Your task to perform on an android device: delete browsing data in the chrome app Image 0: 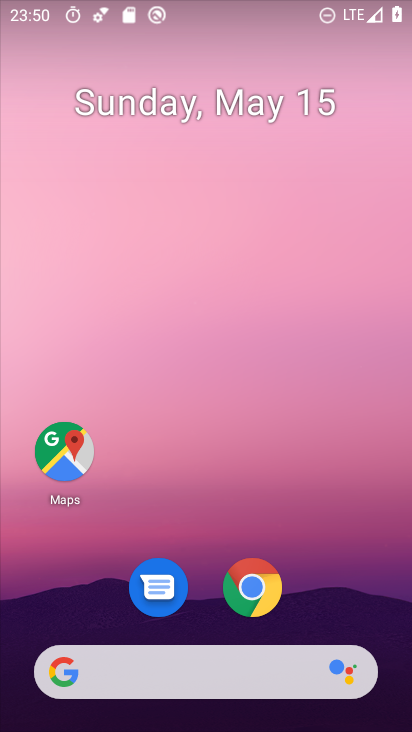
Step 0: click (287, 602)
Your task to perform on an android device: delete browsing data in the chrome app Image 1: 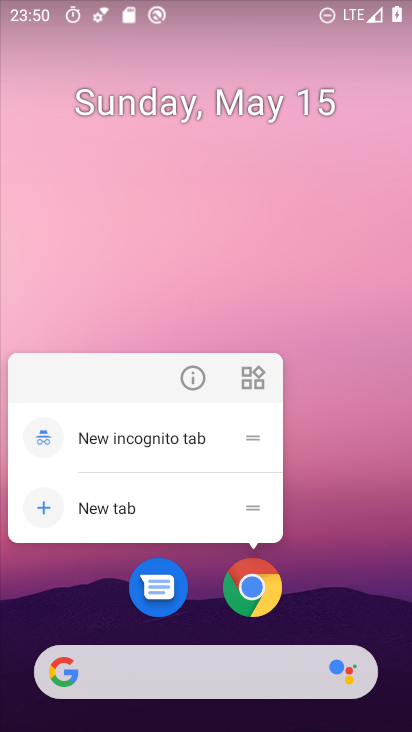
Step 1: click (252, 556)
Your task to perform on an android device: delete browsing data in the chrome app Image 2: 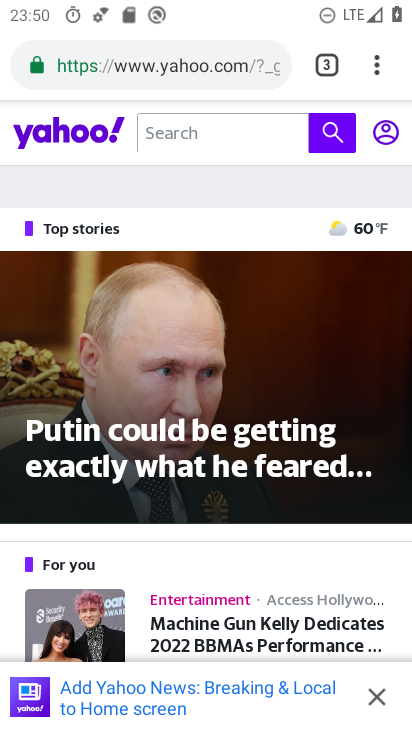
Step 2: task complete